Your task to perform on an android device: Show me recent news Image 0: 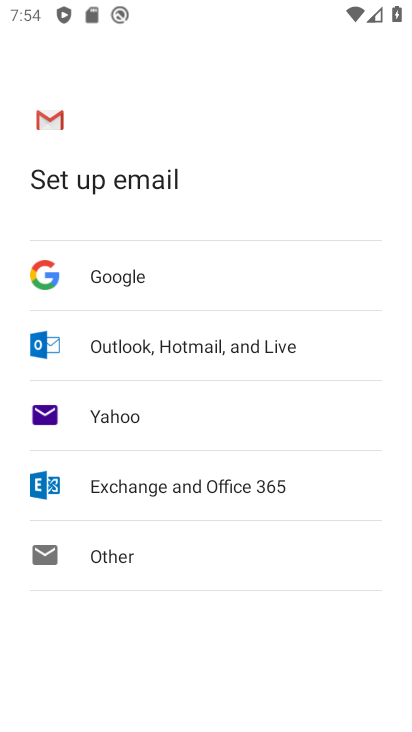
Step 0: press home button
Your task to perform on an android device: Show me recent news Image 1: 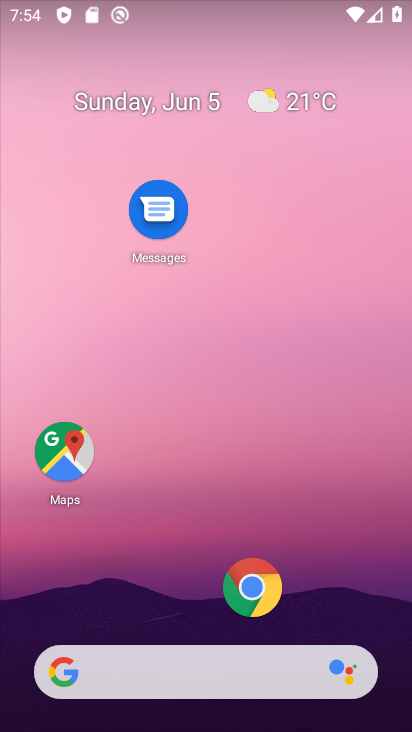
Step 1: task complete